Your task to perform on an android device: refresh tabs in the chrome app Image 0: 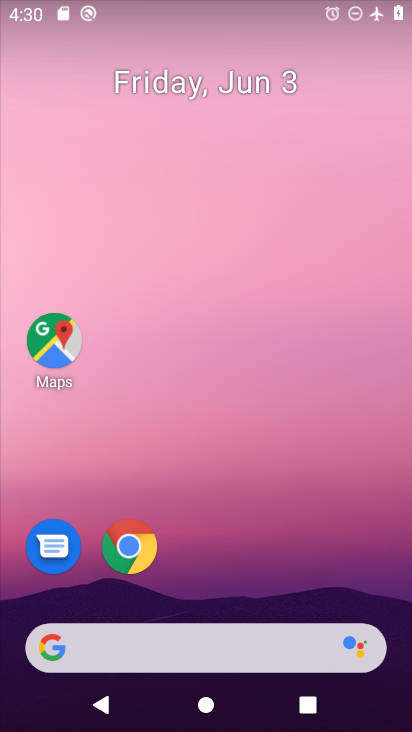
Step 0: click (137, 551)
Your task to perform on an android device: refresh tabs in the chrome app Image 1: 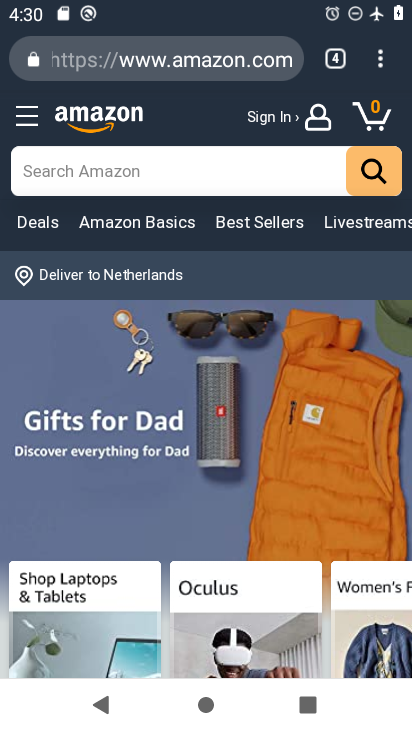
Step 1: click (379, 70)
Your task to perform on an android device: refresh tabs in the chrome app Image 2: 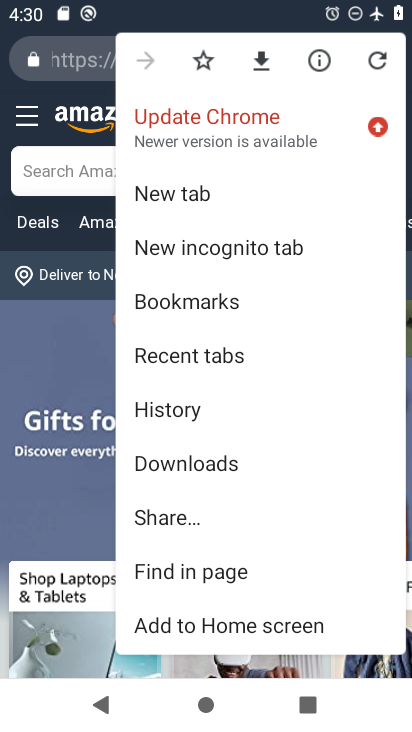
Step 2: click (380, 56)
Your task to perform on an android device: refresh tabs in the chrome app Image 3: 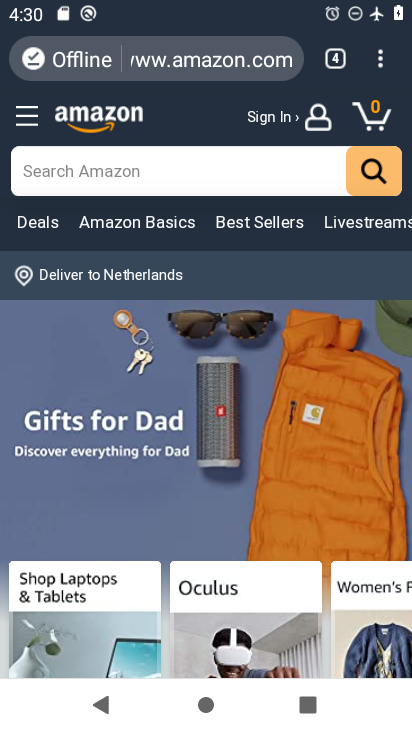
Step 3: task complete